Your task to perform on an android device: set the stopwatch Image 0: 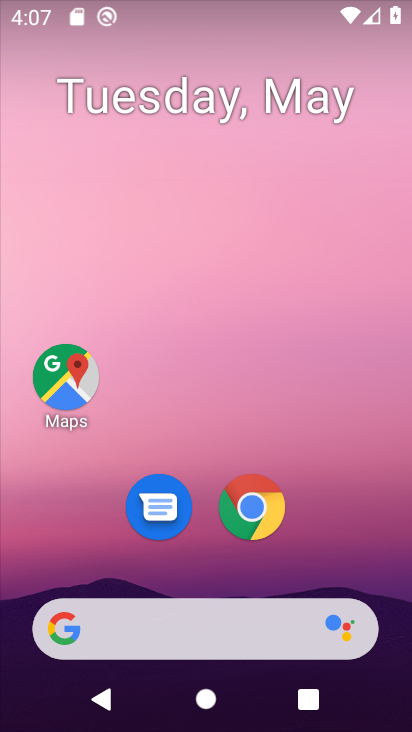
Step 0: drag from (333, 572) to (332, 25)
Your task to perform on an android device: set the stopwatch Image 1: 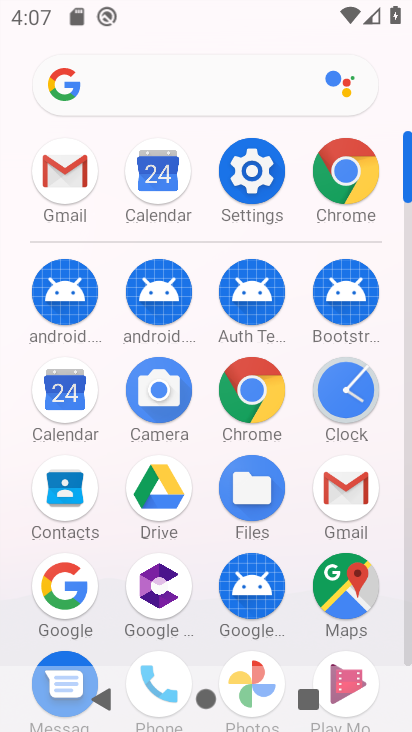
Step 1: click (334, 384)
Your task to perform on an android device: set the stopwatch Image 2: 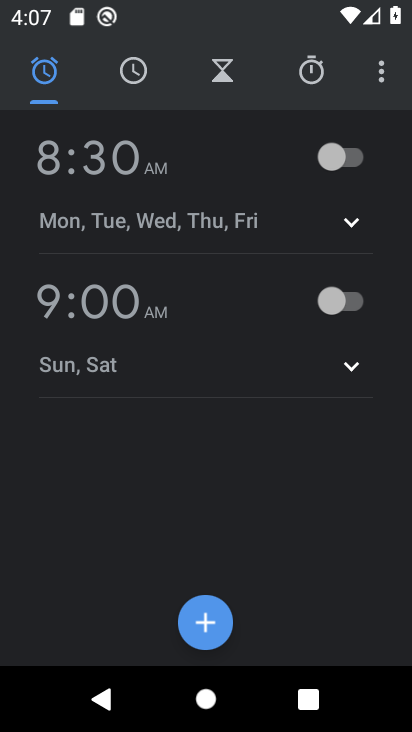
Step 2: click (310, 81)
Your task to perform on an android device: set the stopwatch Image 3: 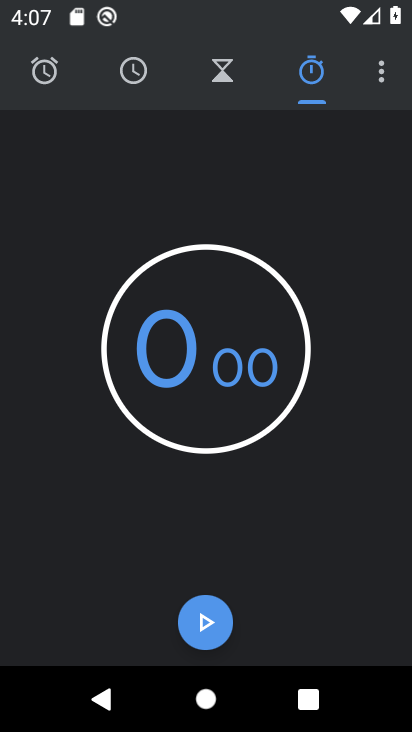
Step 3: click (194, 623)
Your task to perform on an android device: set the stopwatch Image 4: 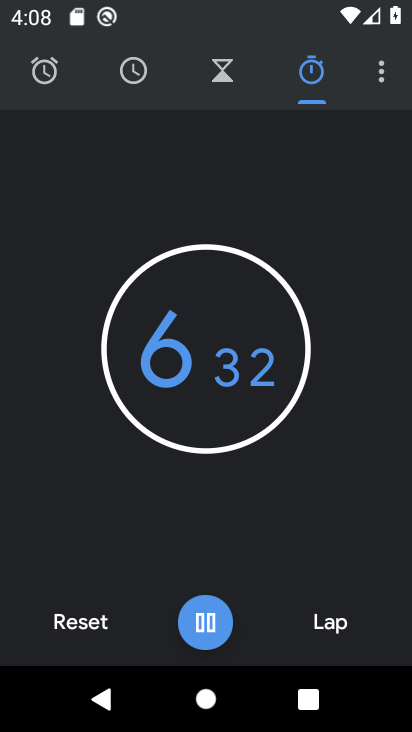
Step 4: task complete